Your task to perform on an android device: turn off priority inbox in the gmail app Image 0: 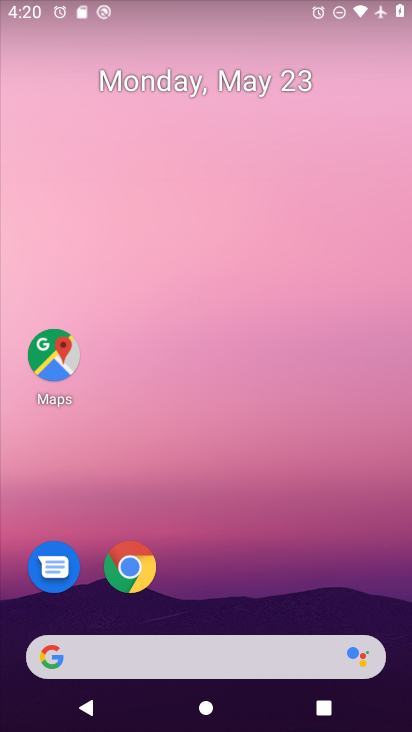
Step 0: drag from (370, 608) to (348, 46)
Your task to perform on an android device: turn off priority inbox in the gmail app Image 1: 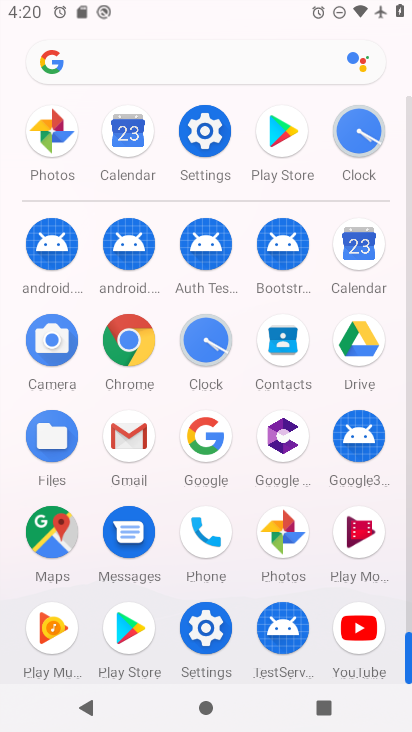
Step 1: click (126, 435)
Your task to perform on an android device: turn off priority inbox in the gmail app Image 2: 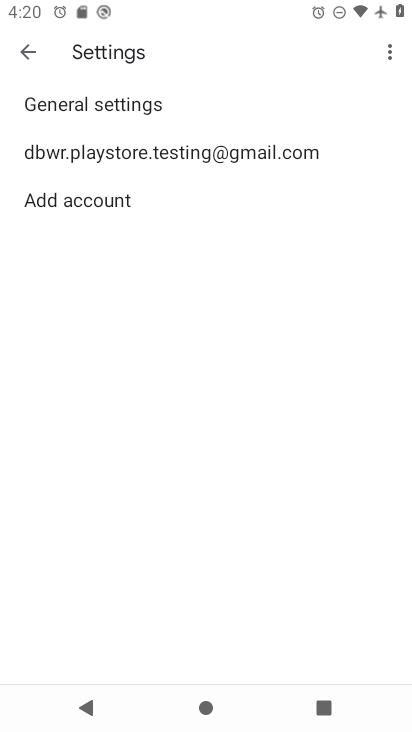
Step 2: click (137, 145)
Your task to perform on an android device: turn off priority inbox in the gmail app Image 3: 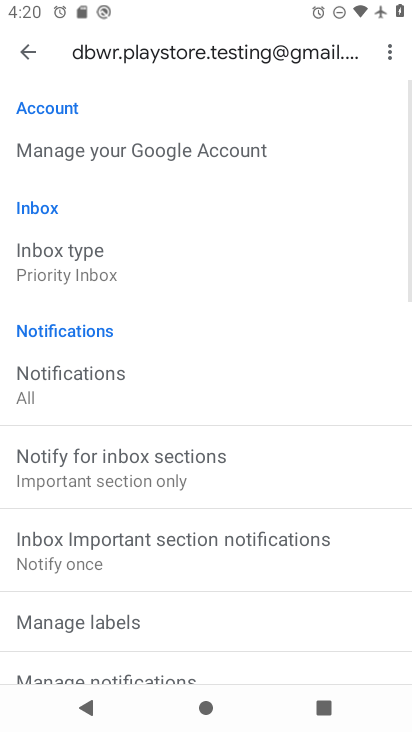
Step 3: click (61, 251)
Your task to perform on an android device: turn off priority inbox in the gmail app Image 4: 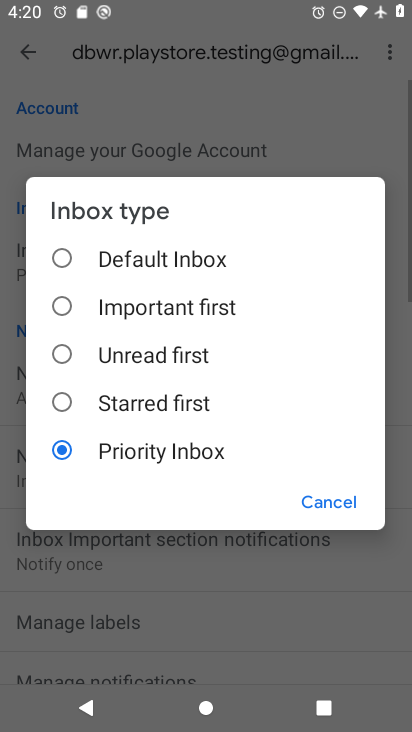
Step 4: click (59, 259)
Your task to perform on an android device: turn off priority inbox in the gmail app Image 5: 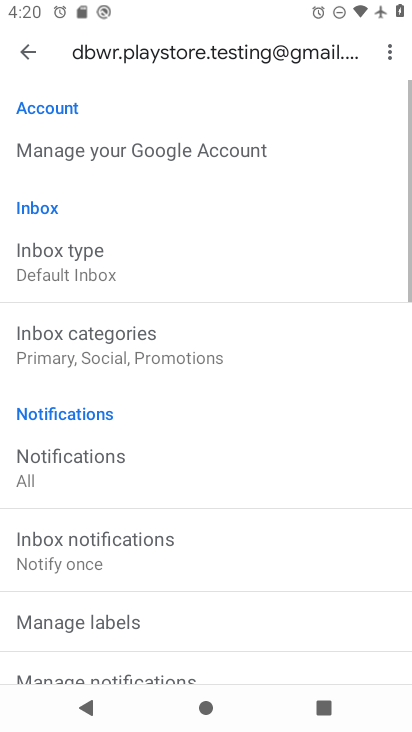
Step 5: task complete